Your task to perform on an android device: Open Wikipedia Image 0: 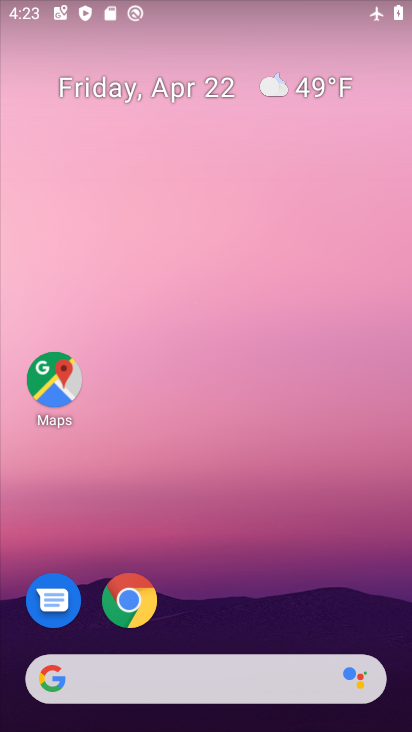
Step 0: click (126, 599)
Your task to perform on an android device: Open Wikipedia Image 1: 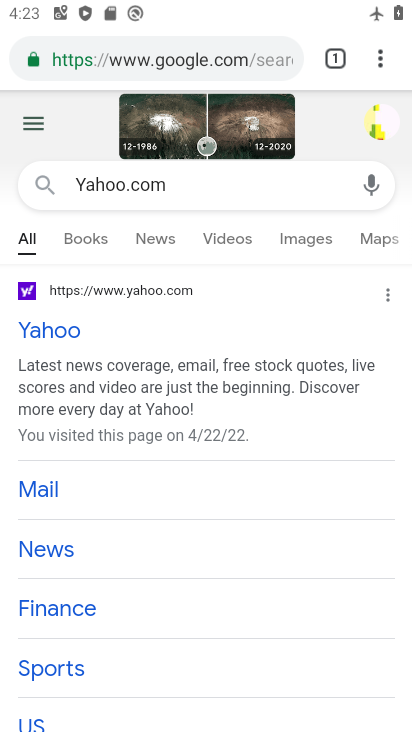
Step 1: click (278, 60)
Your task to perform on an android device: Open Wikipedia Image 2: 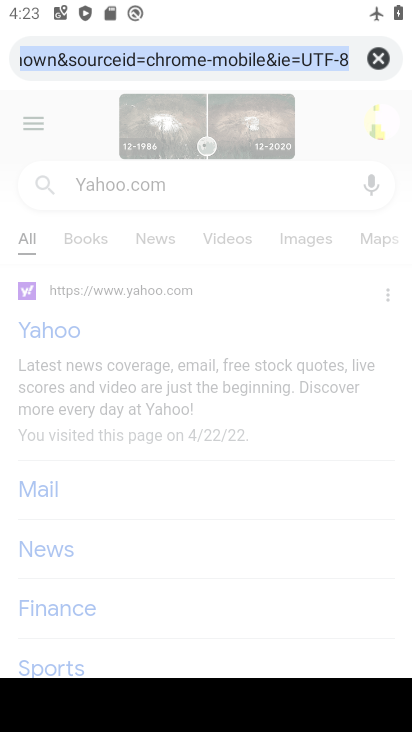
Step 2: click (377, 57)
Your task to perform on an android device: Open Wikipedia Image 3: 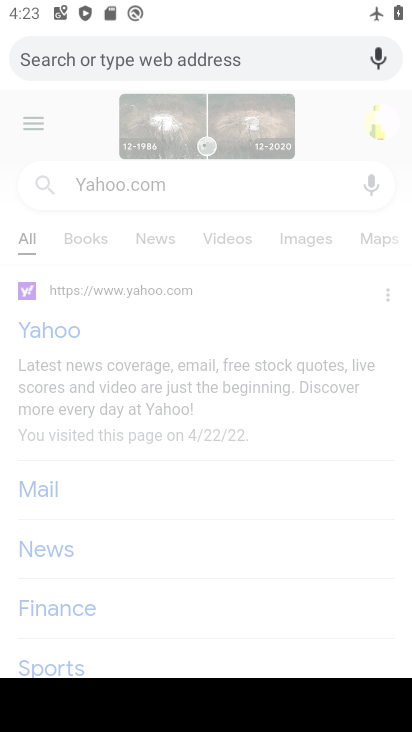
Step 3: type "Wikipedia"
Your task to perform on an android device: Open Wikipedia Image 4: 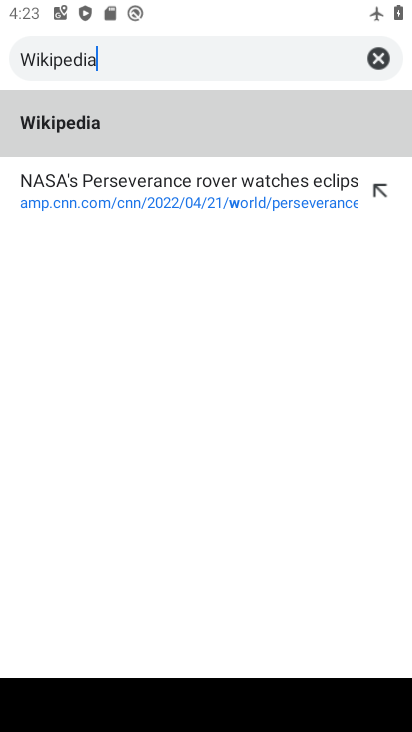
Step 4: type ""
Your task to perform on an android device: Open Wikipedia Image 5: 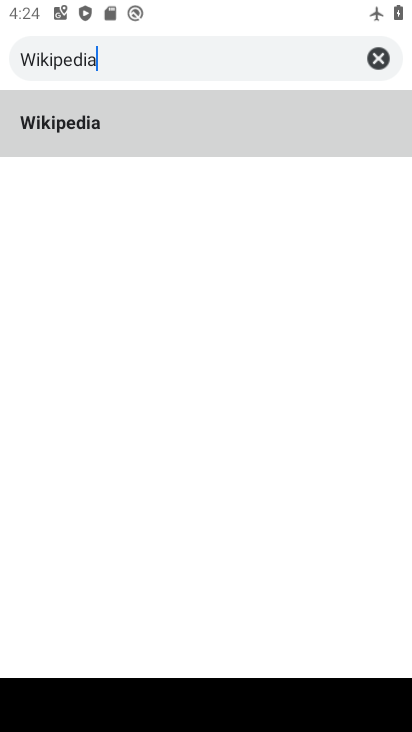
Step 5: click (76, 129)
Your task to perform on an android device: Open Wikipedia Image 6: 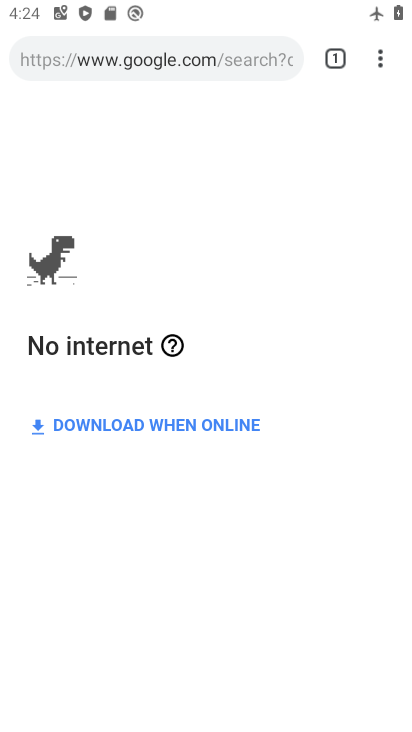
Step 6: task complete